Your task to perform on an android device: Open Google Maps Image 0: 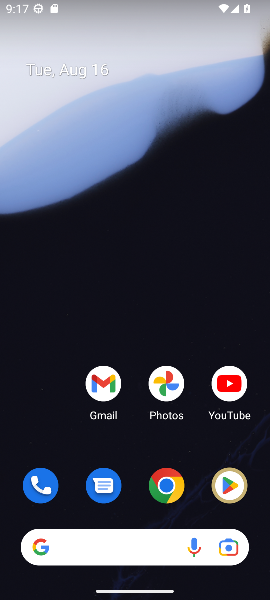
Step 0: drag from (167, 445) to (110, 164)
Your task to perform on an android device: Open Google Maps Image 1: 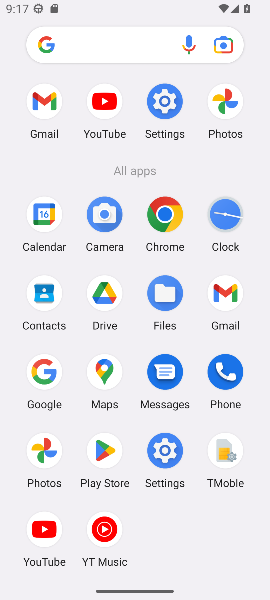
Step 1: click (102, 372)
Your task to perform on an android device: Open Google Maps Image 2: 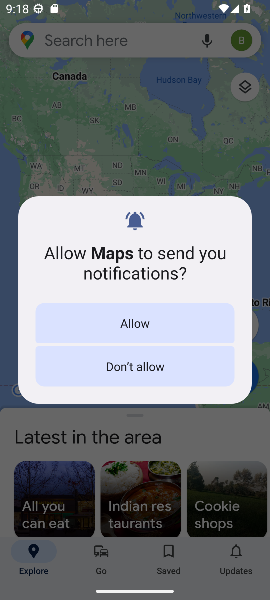
Step 2: click (148, 328)
Your task to perform on an android device: Open Google Maps Image 3: 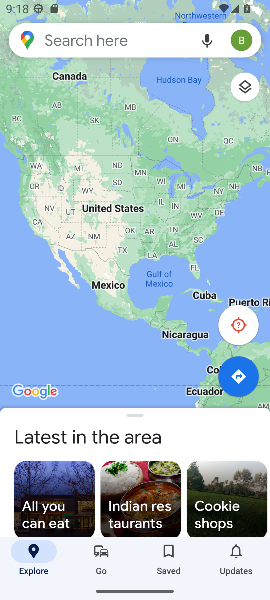
Step 3: task complete